Your task to perform on an android device: toggle location history Image 0: 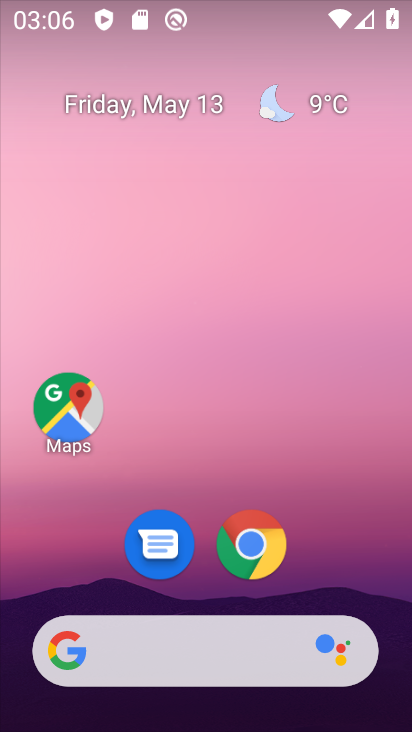
Step 0: drag from (321, 545) to (256, 64)
Your task to perform on an android device: toggle location history Image 1: 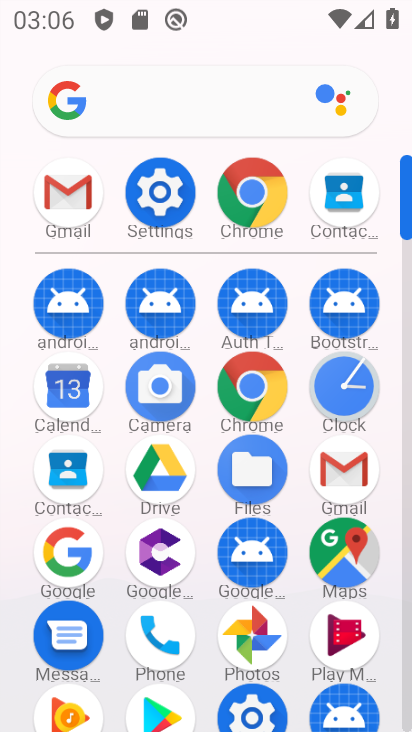
Step 1: drag from (19, 578) to (41, 285)
Your task to perform on an android device: toggle location history Image 2: 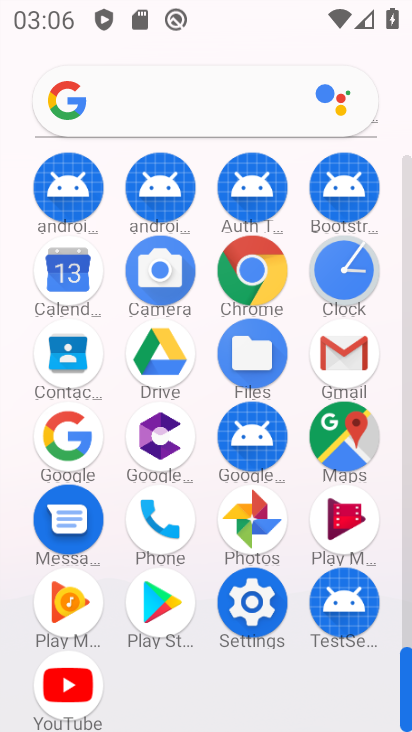
Step 2: click (250, 597)
Your task to perform on an android device: toggle location history Image 3: 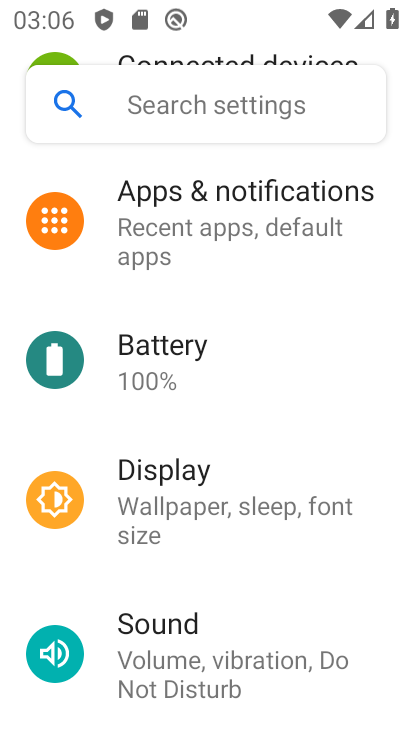
Step 3: drag from (309, 575) to (306, 149)
Your task to perform on an android device: toggle location history Image 4: 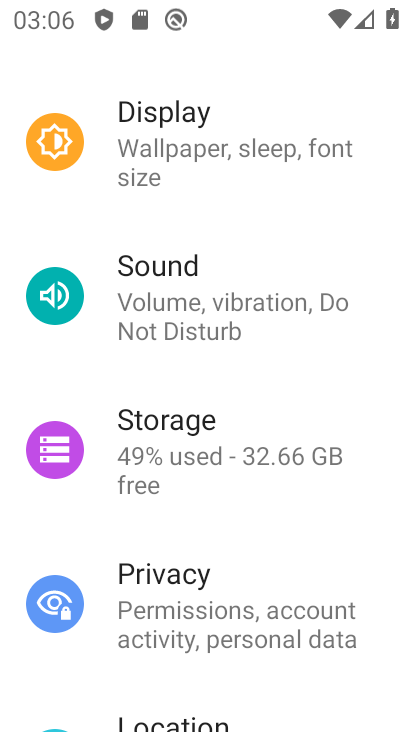
Step 4: drag from (240, 561) to (282, 92)
Your task to perform on an android device: toggle location history Image 5: 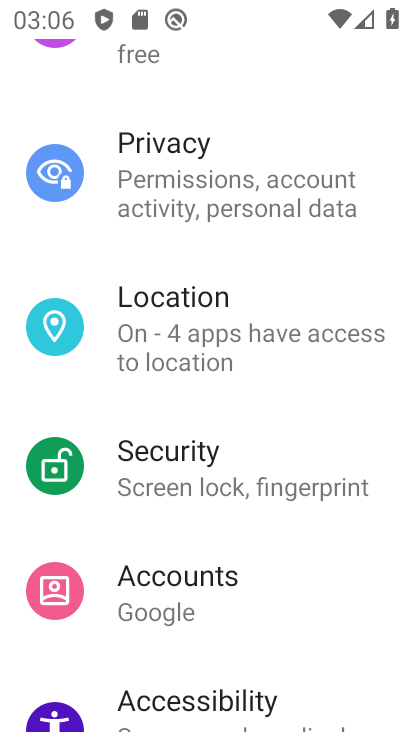
Step 5: drag from (237, 560) to (266, 123)
Your task to perform on an android device: toggle location history Image 6: 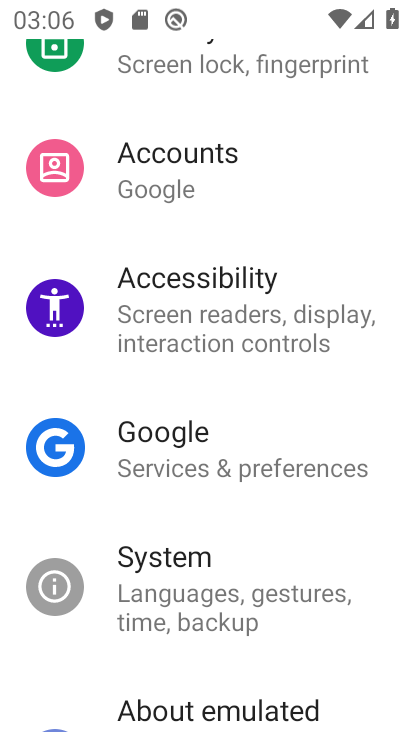
Step 6: drag from (247, 178) to (259, 470)
Your task to perform on an android device: toggle location history Image 7: 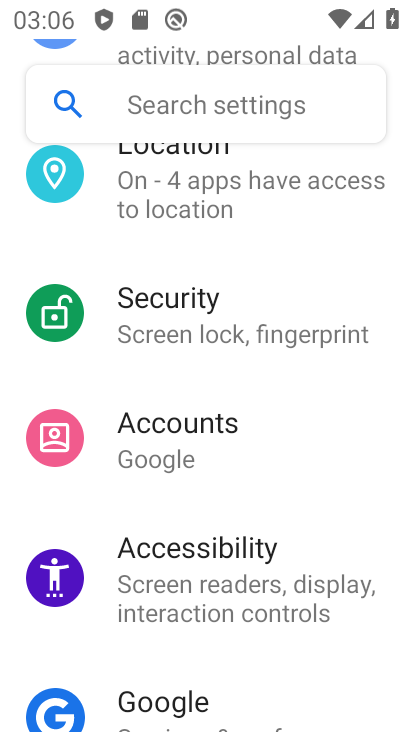
Step 7: click (247, 172)
Your task to perform on an android device: toggle location history Image 8: 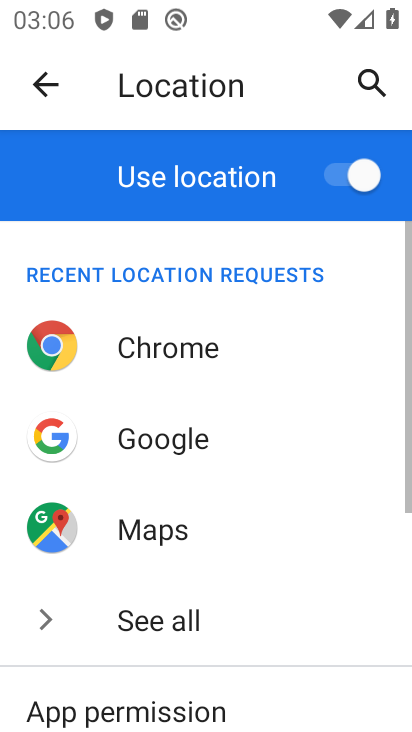
Step 8: drag from (276, 564) to (272, 242)
Your task to perform on an android device: toggle location history Image 9: 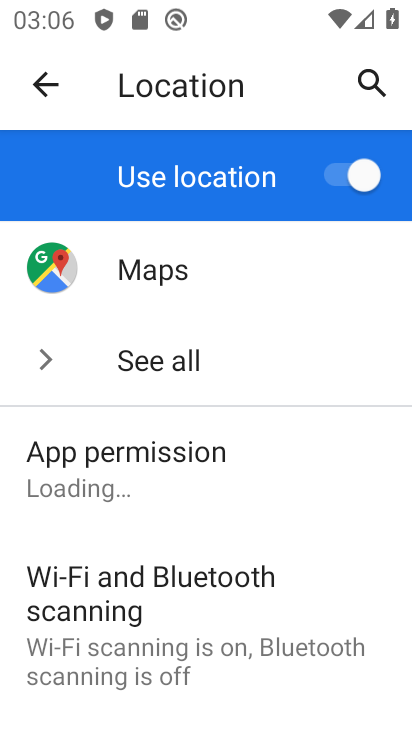
Step 9: drag from (217, 546) to (239, 252)
Your task to perform on an android device: toggle location history Image 10: 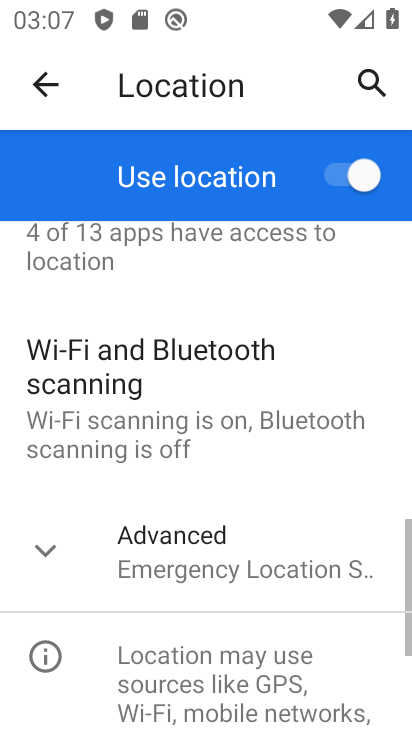
Step 10: click (195, 525)
Your task to perform on an android device: toggle location history Image 11: 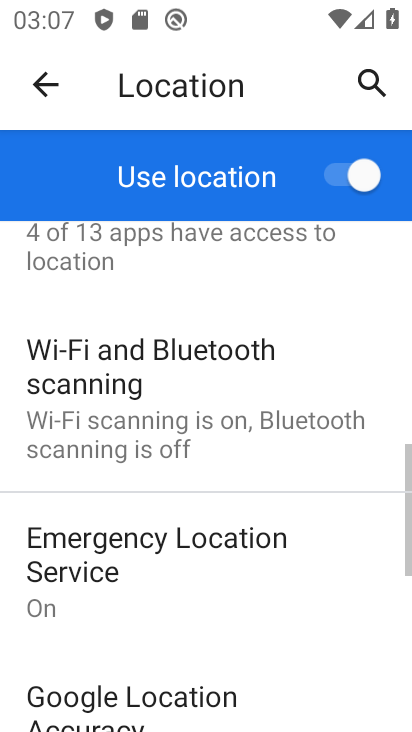
Step 11: drag from (267, 363) to (267, 265)
Your task to perform on an android device: toggle location history Image 12: 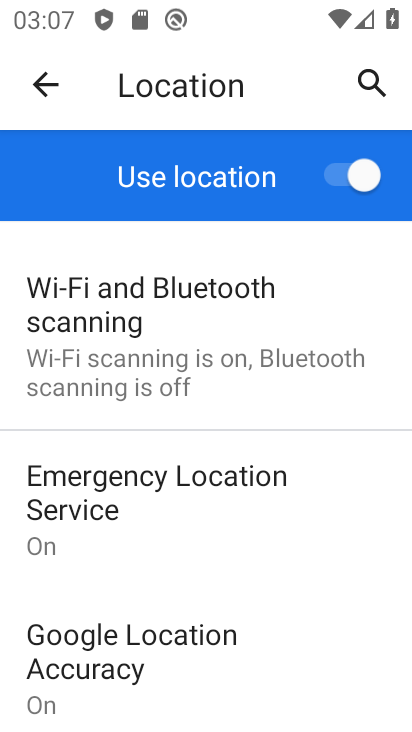
Step 12: drag from (261, 620) to (290, 277)
Your task to perform on an android device: toggle location history Image 13: 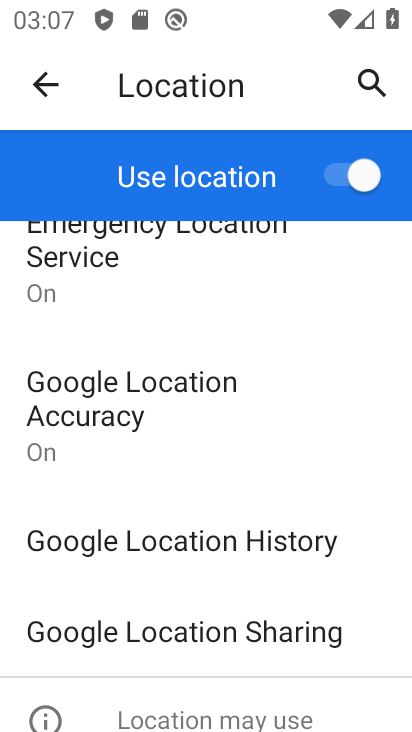
Step 13: click (227, 525)
Your task to perform on an android device: toggle location history Image 14: 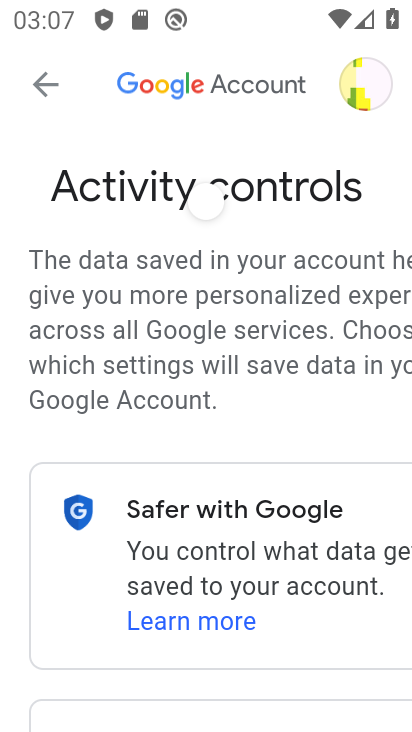
Step 14: drag from (214, 546) to (200, 209)
Your task to perform on an android device: toggle location history Image 15: 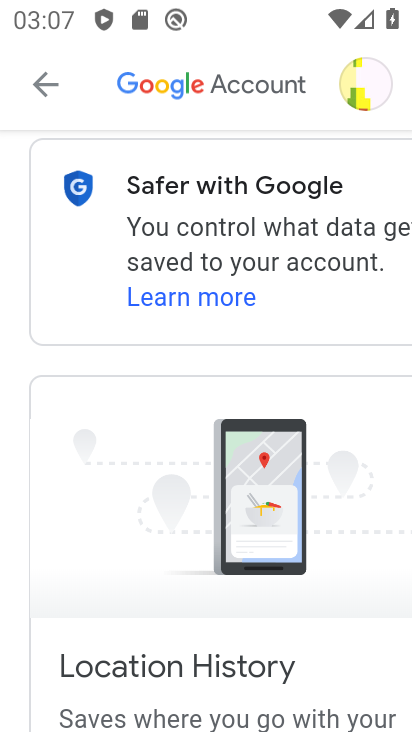
Step 15: drag from (140, 539) to (147, 163)
Your task to perform on an android device: toggle location history Image 16: 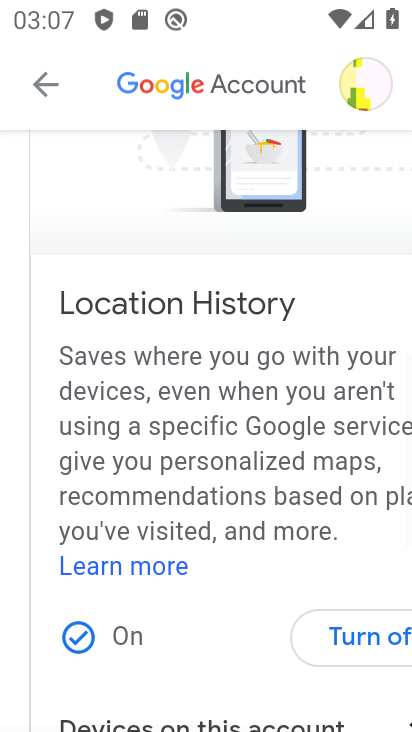
Step 16: drag from (147, 539) to (140, 176)
Your task to perform on an android device: toggle location history Image 17: 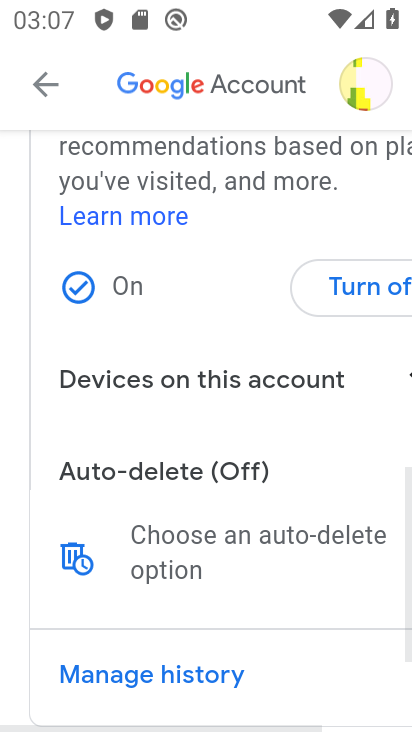
Step 17: drag from (179, 560) to (170, 204)
Your task to perform on an android device: toggle location history Image 18: 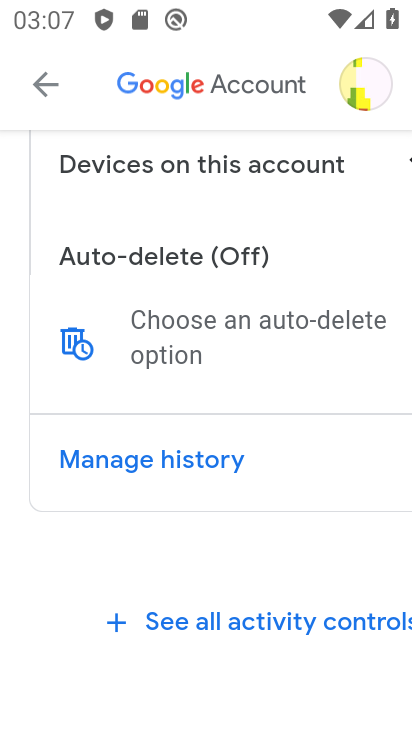
Step 18: click (81, 336)
Your task to perform on an android device: toggle location history Image 19: 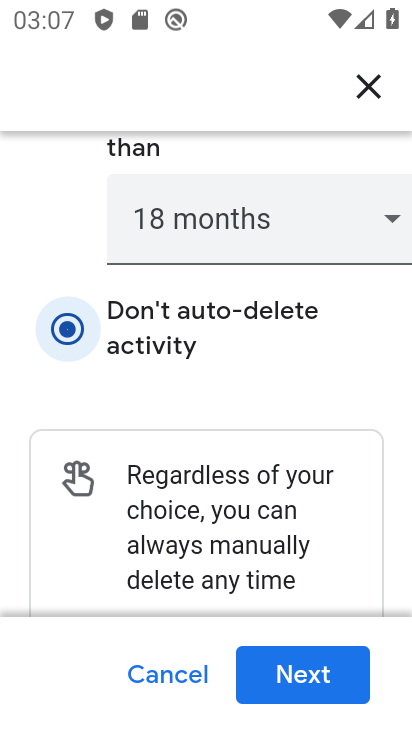
Step 19: click (291, 687)
Your task to perform on an android device: toggle location history Image 20: 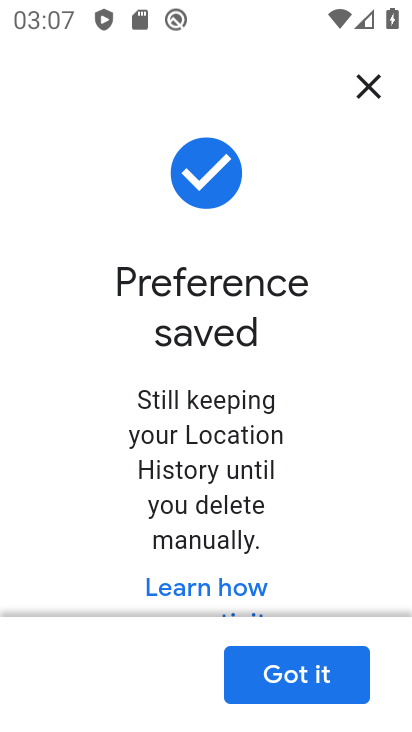
Step 20: task complete